Your task to perform on an android device: visit the assistant section in the google photos Image 0: 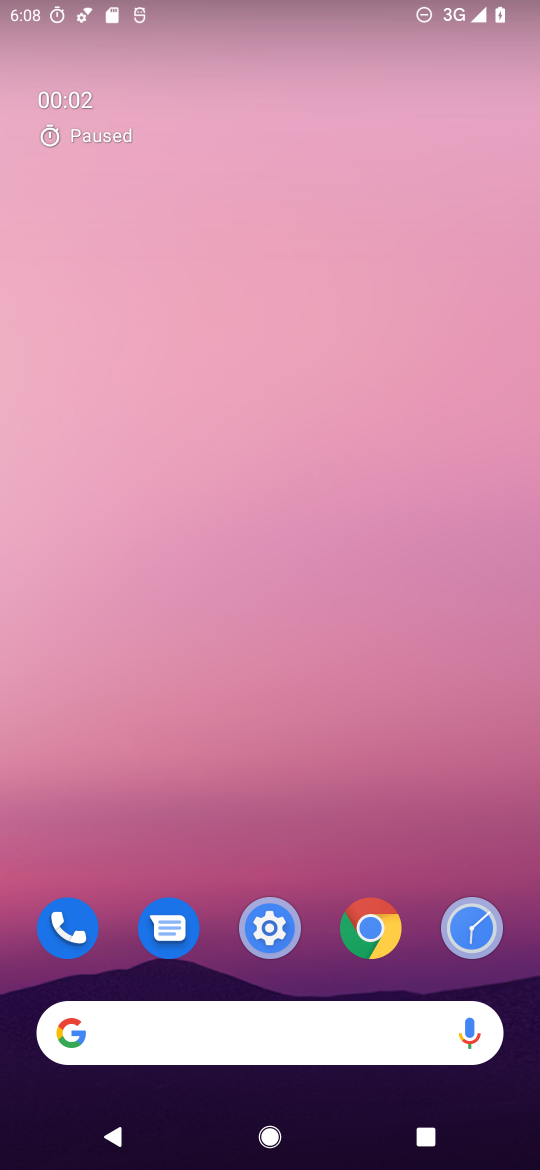
Step 0: drag from (324, 782) to (538, 46)
Your task to perform on an android device: visit the assistant section in the google photos Image 1: 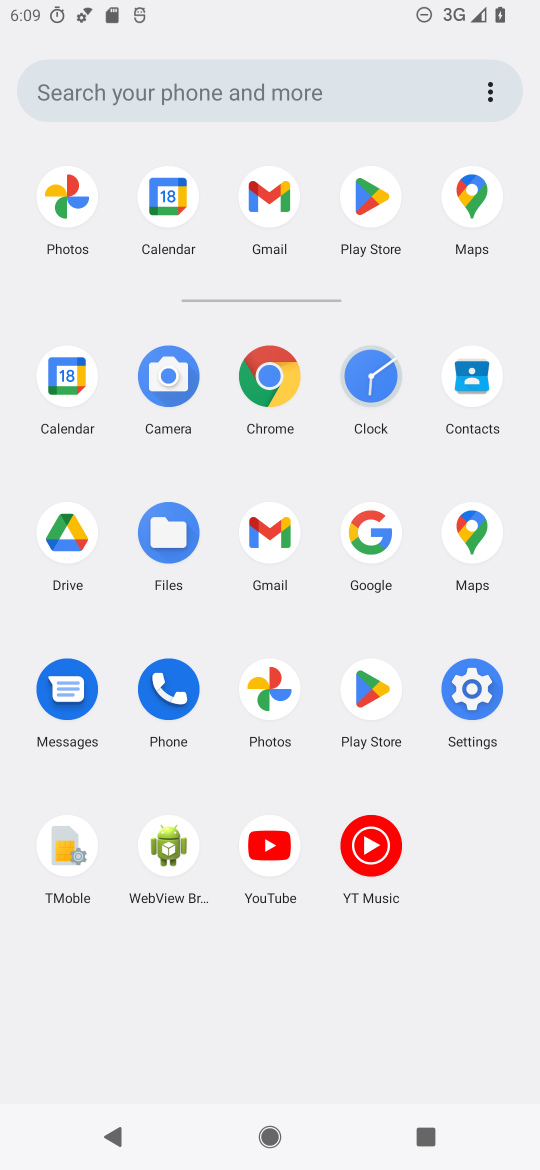
Step 1: click (271, 680)
Your task to perform on an android device: visit the assistant section in the google photos Image 2: 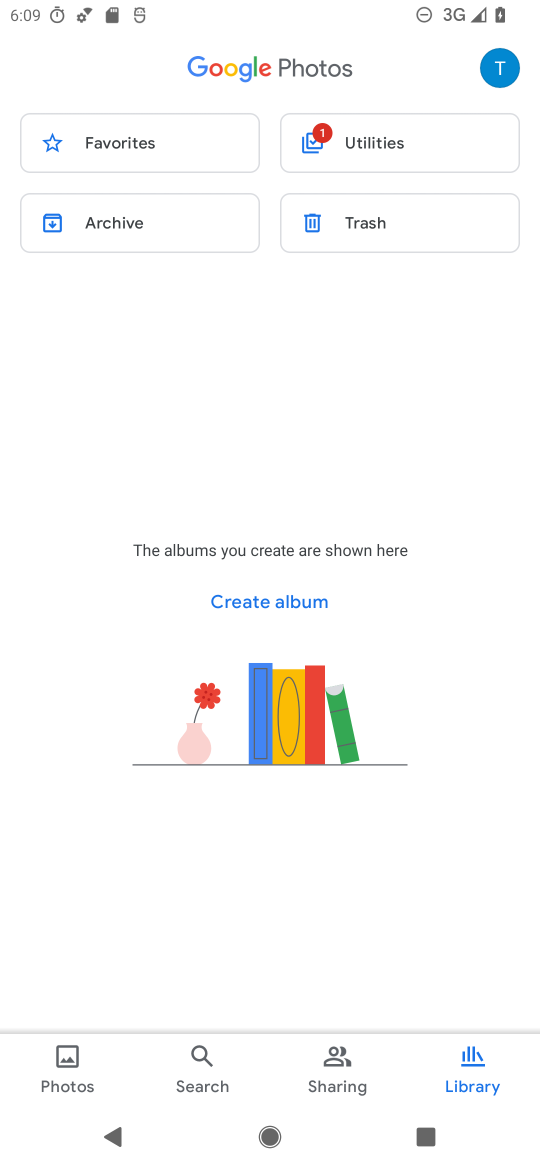
Step 2: task complete